Your task to perform on an android device: visit the assistant section in the google photos Image 0: 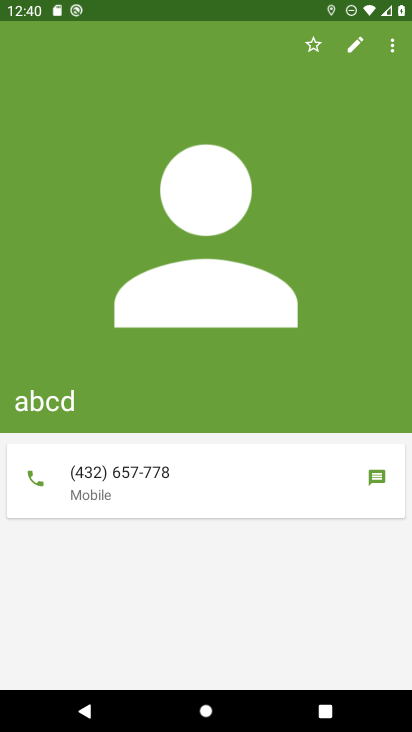
Step 0: press home button
Your task to perform on an android device: visit the assistant section in the google photos Image 1: 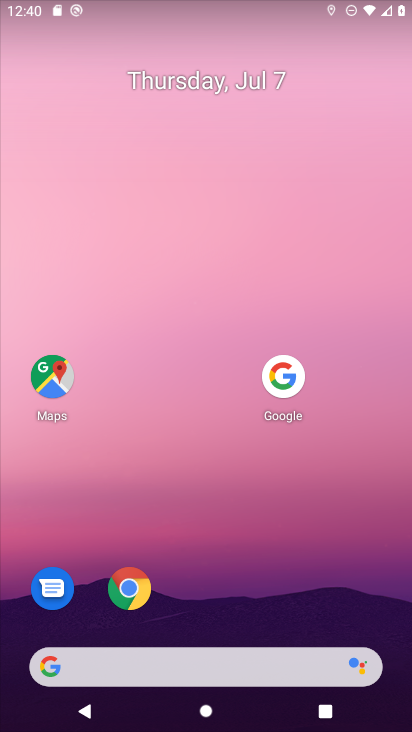
Step 1: drag from (171, 649) to (346, 102)
Your task to perform on an android device: visit the assistant section in the google photos Image 2: 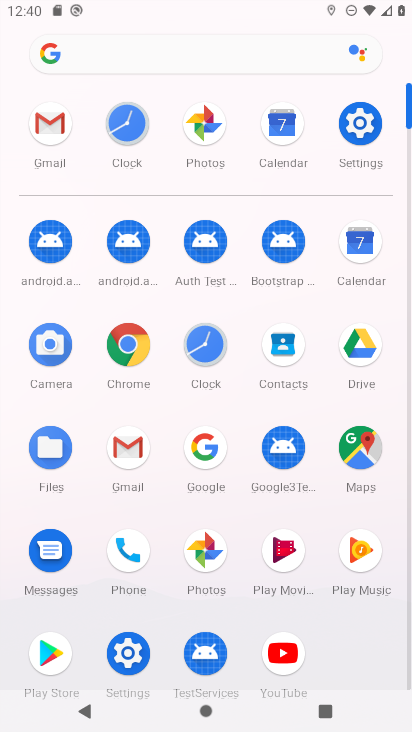
Step 2: click (210, 548)
Your task to perform on an android device: visit the assistant section in the google photos Image 3: 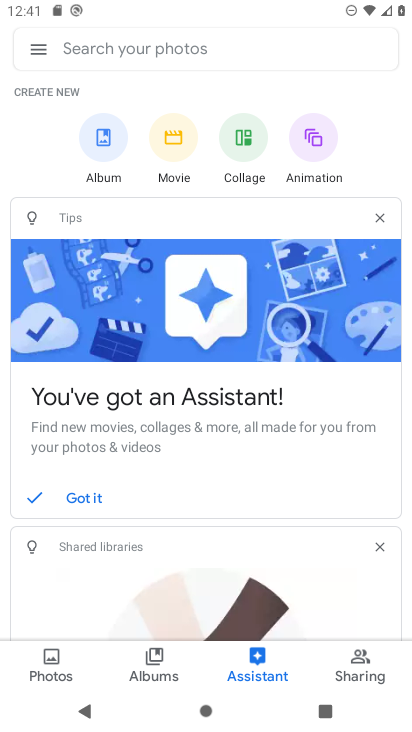
Step 3: task complete